Your task to perform on an android device: turn notification dots off Image 0: 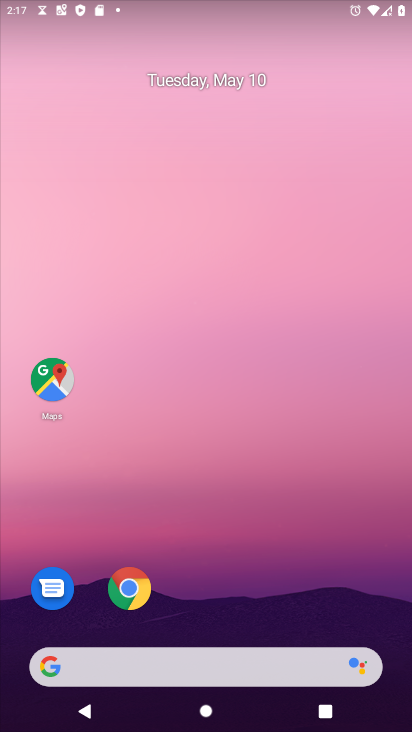
Step 0: drag from (217, 578) to (191, 245)
Your task to perform on an android device: turn notification dots off Image 1: 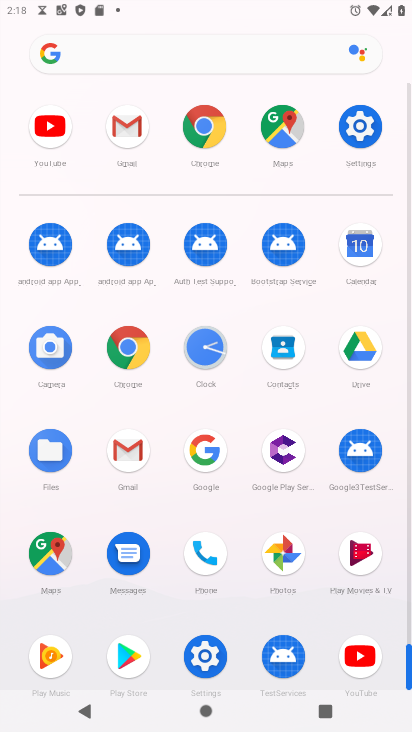
Step 1: click (355, 121)
Your task to perform on an android device: turn notification dots off Image 2: 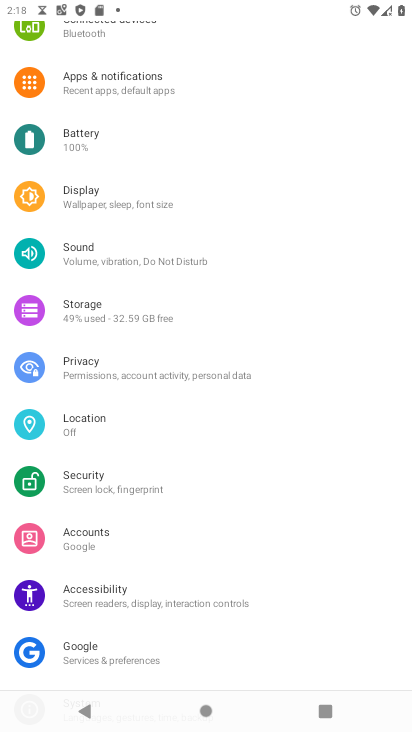
Step 2: drag from (210, 72) to (184, 539)
Your task to perform on an android device: turn notification dots off Image 3: 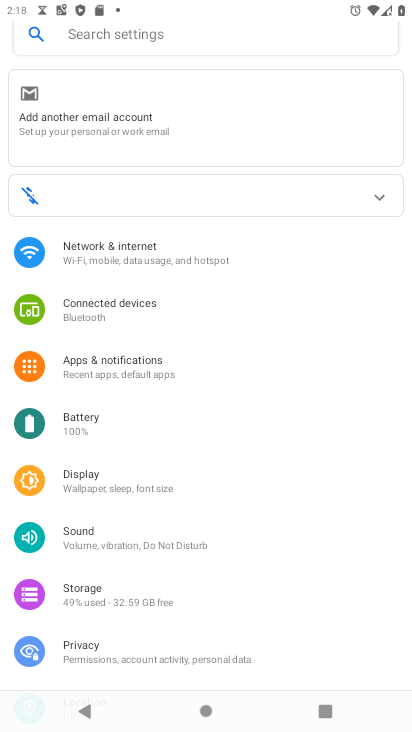
Step 3: click (209, 22)
Your task to perform on an android device: turn notification dots off Image 4: 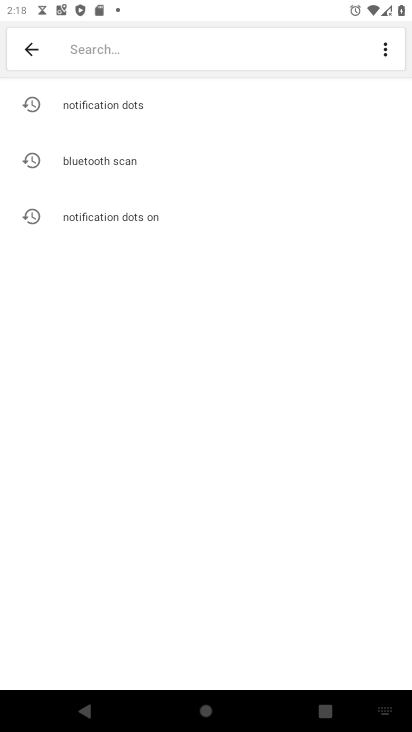
Step 4: click (146, 98)
Your task to perform on an android device: turn notification dots off Image 5: 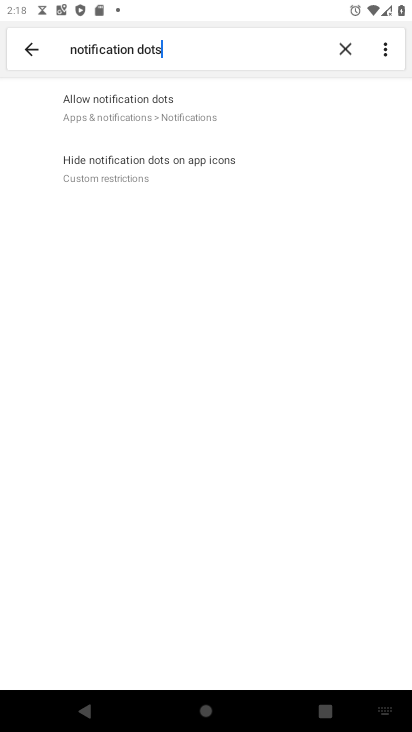
Step 5: click (195, 115)
Your task to perform on an android device: turn notification dots off Image 6: 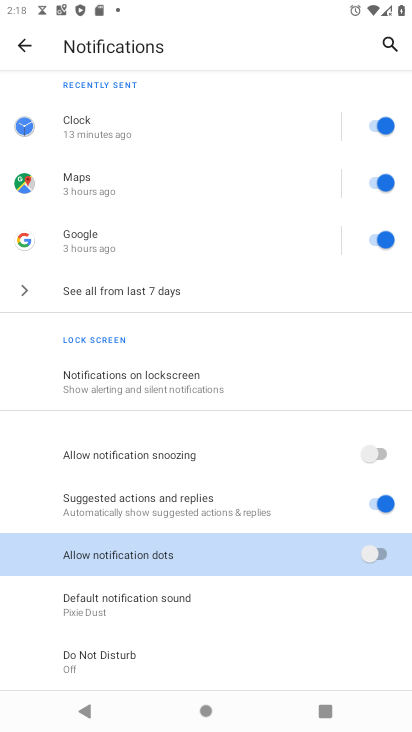
Step 6: task complete